Your task to perform on an android device: change timer sound Image 0: 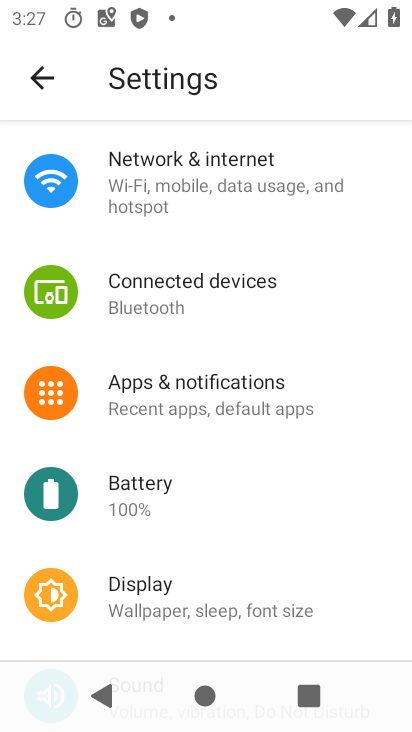
Step 0: press home button
Your task to perform on an android device: change timer sound Image 1: 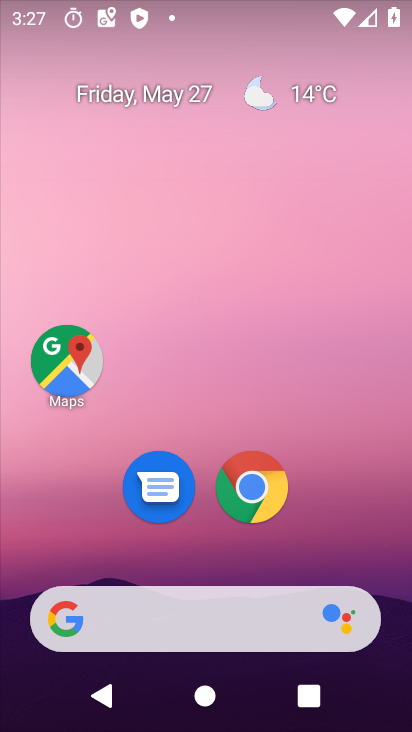
Step 1: drag from (321, 494) to (310, 122)
Your task to perform on an android device: change timer sound Image 2: 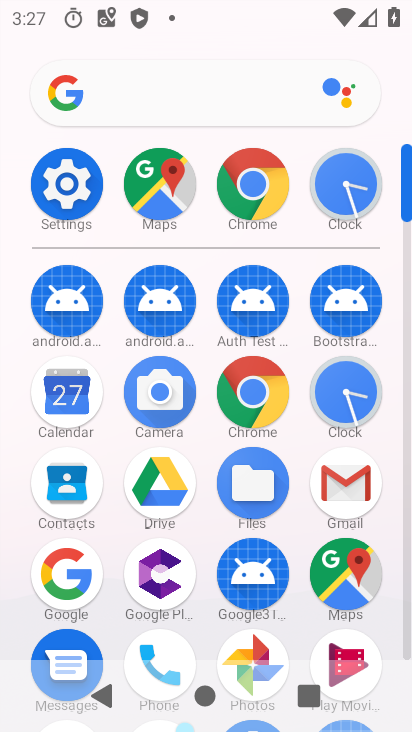
Step 2: click (344, 397)
Your task to perform on an android device: change timer sound Image 3: 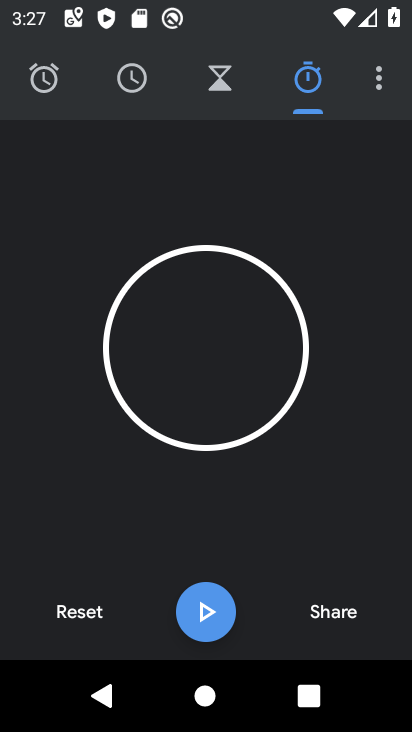
Step 3: click (388, 72)
Your task to perform on an android device: change timer sound Image 4: 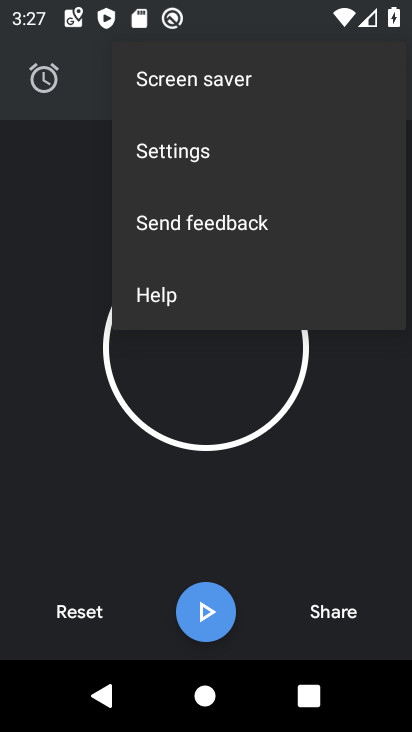
Step 4: click (221, 177)
Your task to perform on an android device: change timer sound Image 5: 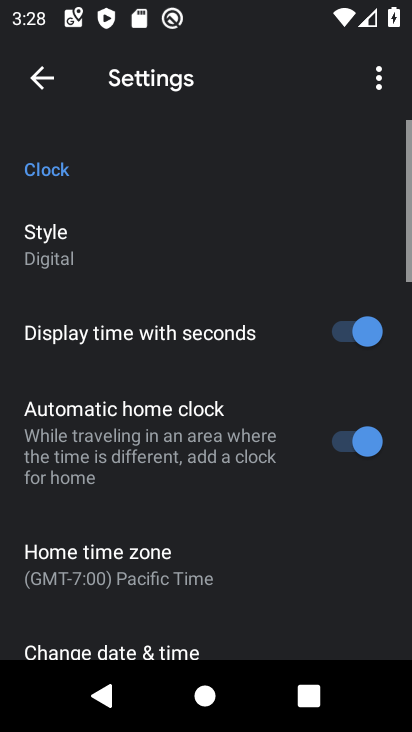
Step 5: drag from (198, 543) to (245, 46)
Your task to perform on an android device: change timer sound Image 6: 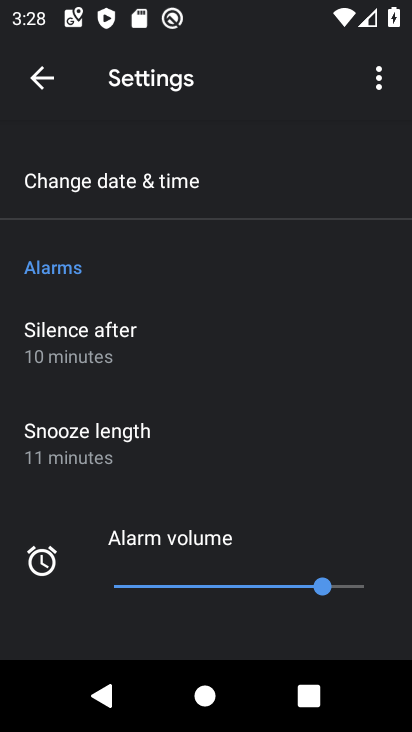
Step 6: drag from (238, 477) to (280, 122)
Your task to perform on an android device: change timer sound Image 7: 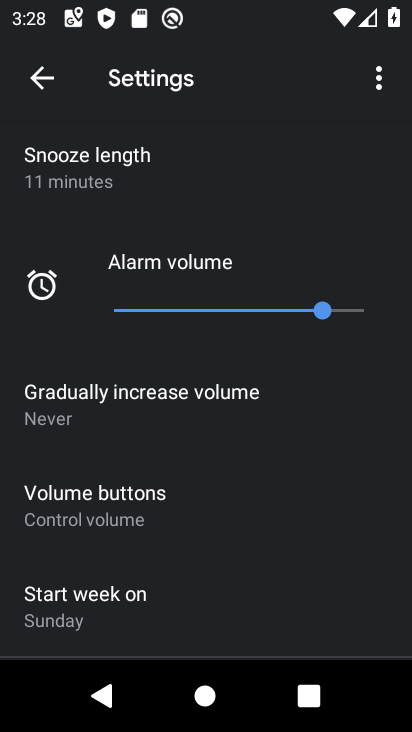
Step 7: drag from (211, 534) to (279, 171)
Your task to perform on an android device: change timer sound Image 8: 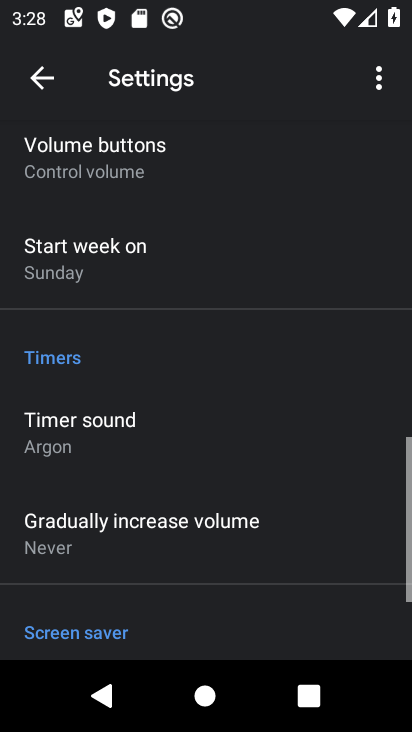
Step 8: click (294, 125)
Your task to perform on an android device: change timer sound Image 9: 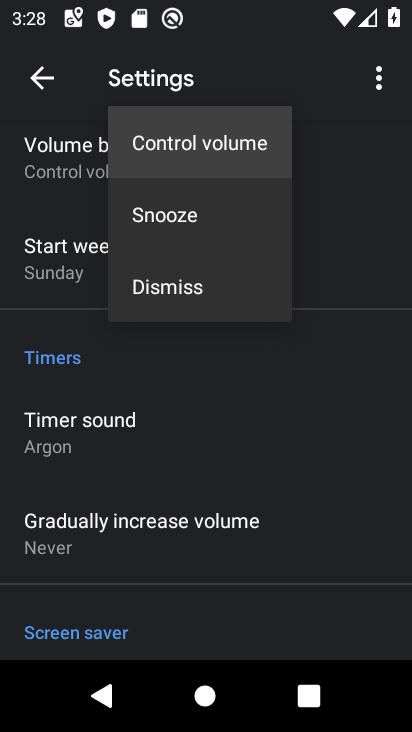
Step 9: click (96, 418)
Your task to perform on an android device: change timer sound Image 10: 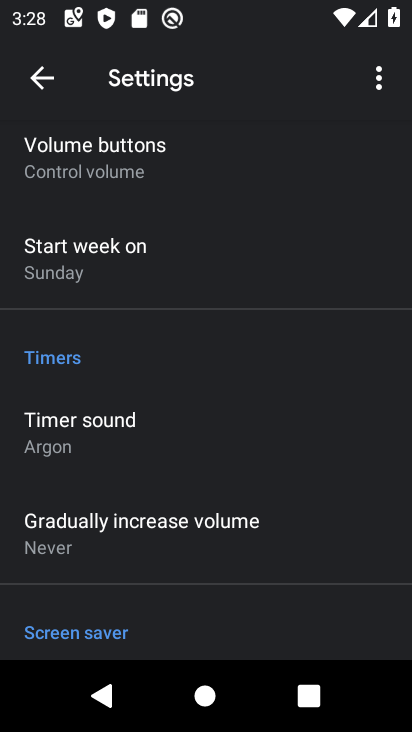
Step 10: click (99, 420)
Your task to perform on an android device: change timer sound Image 11: 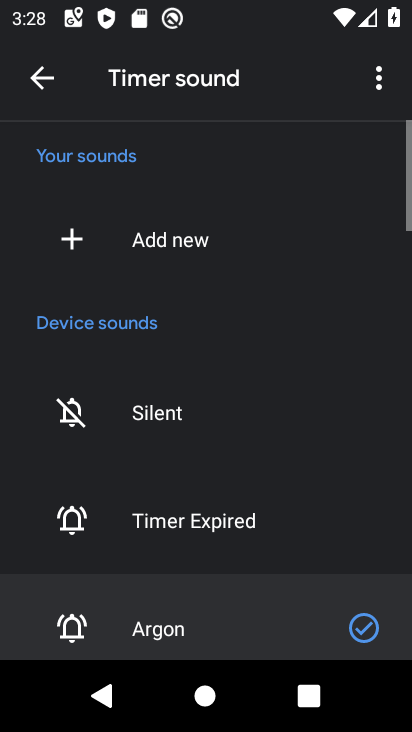
Step 11: drag from (230, 529) to (331, 155)
Your task to perform on an android device: change timer sound Image 12: 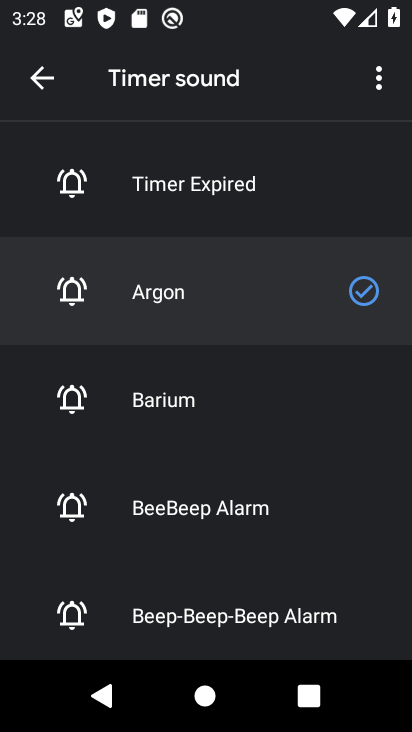
Step 12: click (234, 195)
Your task to perform on an android device: change timer sound Image 13: 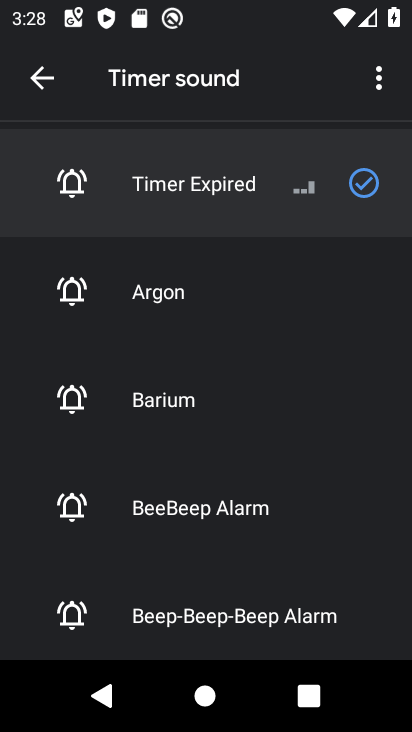
Step 13: task complete